Your task to perform on an android device: Search for Mexican restaurants on Maps Image 0: 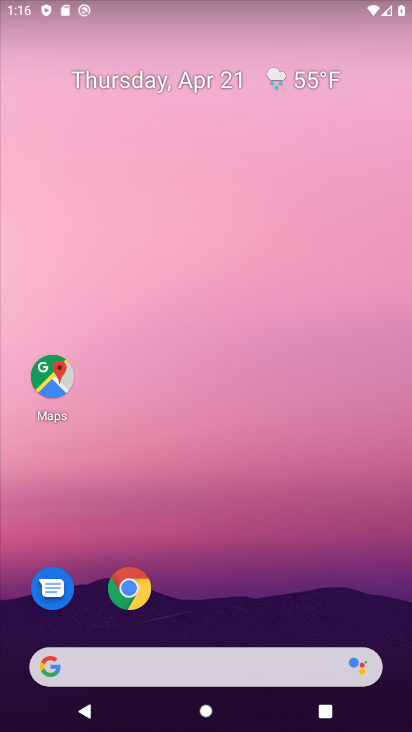
Step 0: click (39, 382)
Your task to perform on an android device: Search for Mexican restaurants on Maps Image 1: 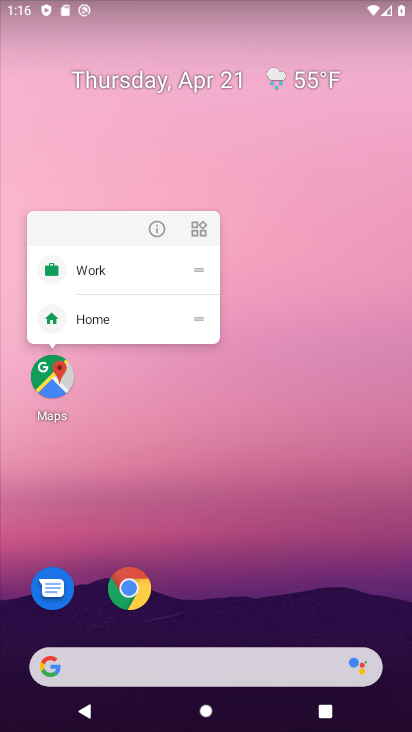
Step 1: click (55, 381)
Your task to perform on an android device: Search for Mexican restaurants on Maps Image 2: 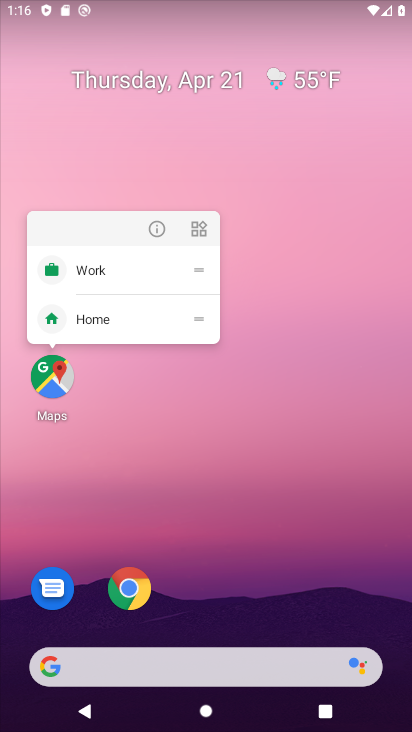
Step 2: click (68, 395)
Your task to perform on an android device: Search for Mexican restaurants on Maps Image 3: 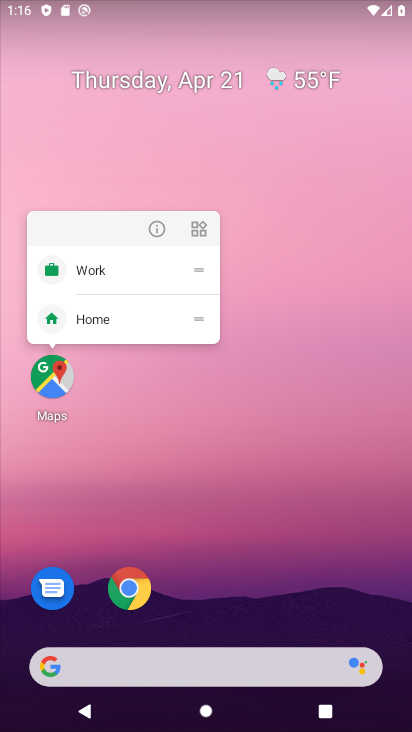
Step 3: click (59, 396)
Your task to perform on an android device: Search for Mexican restaurants on Maps Image 4: 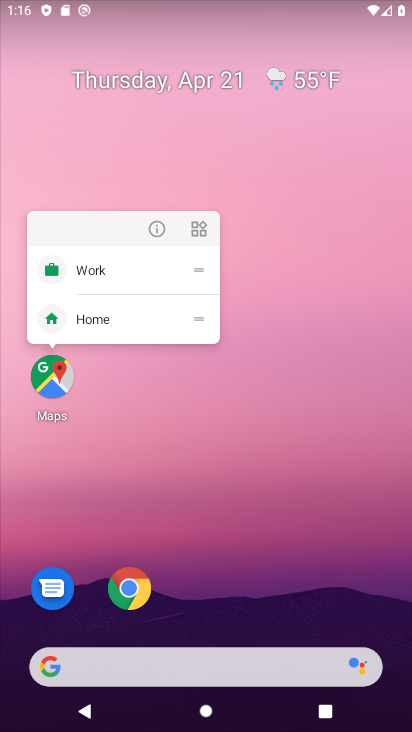
Step 4: click (59, 396)
Your task to perform on an android device: Search for Mexican restaurants on Maps Image 5: 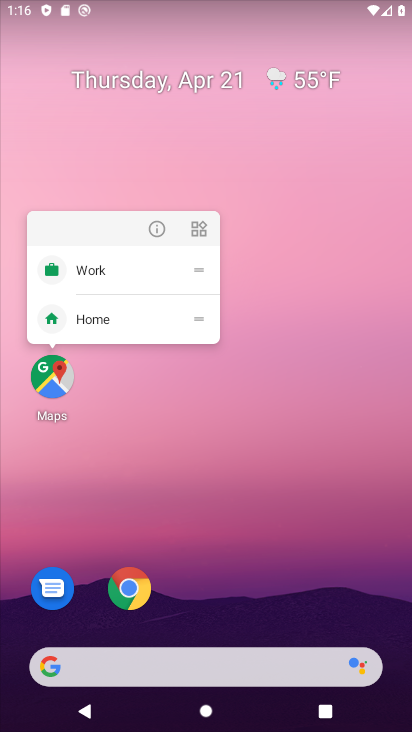
Step 5: click (59, 389)
Your task to perform on an android device: Search for Mexican restaurants on Maps Image 6: 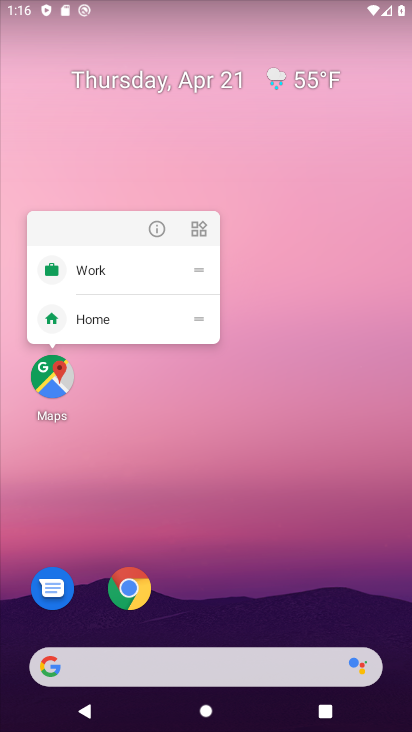
Step 6: click (54, 382)
Your task to perform on an android device: Search for Mexican restaurants on Maps Image 7: 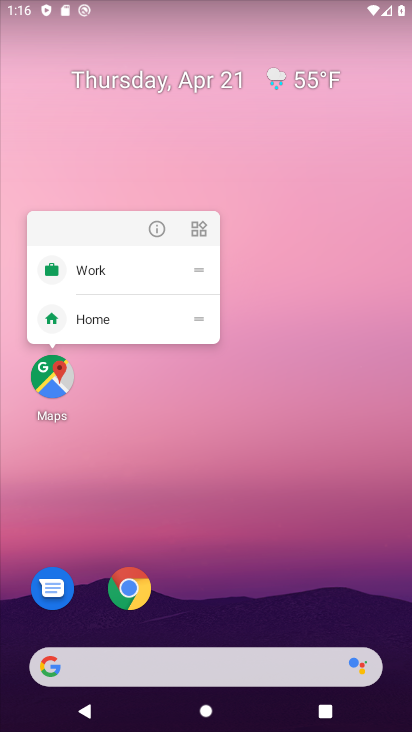
Step 7: click (51, 394)
Your task to perform on an android device: Search for Mexican restaurants on Maps Image 8: 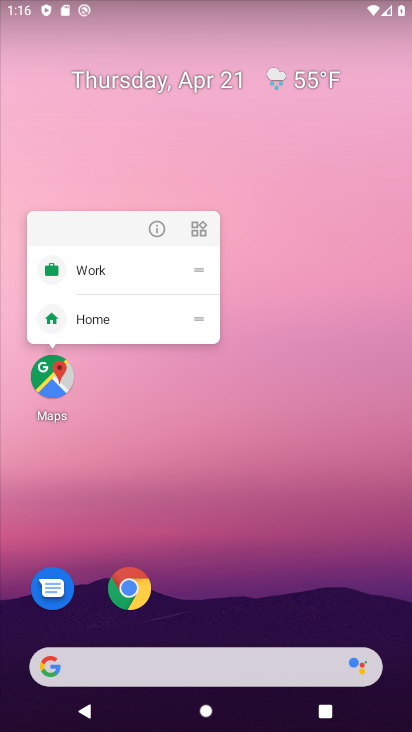
Step 8: click (38, 390)
Your task to perform on an android device: Search for Mexican restaurants on Maps Image 9: 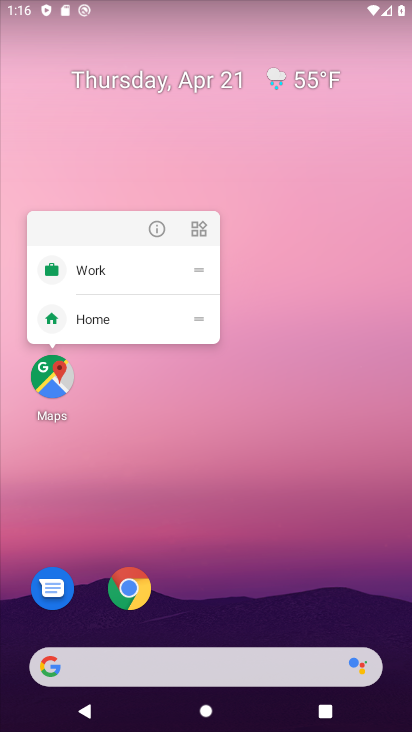
Step 9: click (38, 382)
Your task to perform on an android device: Search for Mexican restaurants on Maps Image 10: 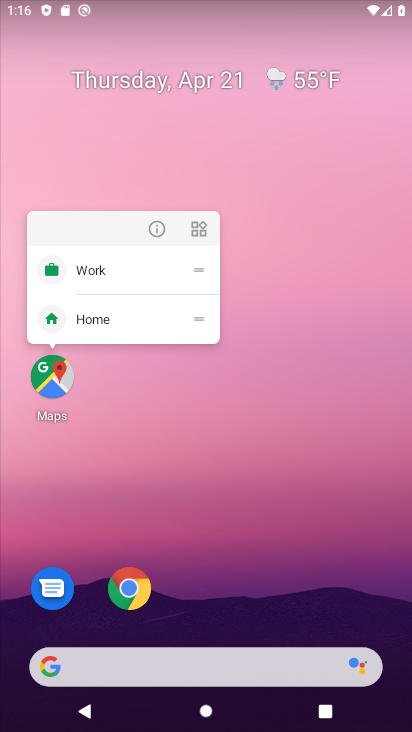
Step 10: click (38, 382)
Your task to perform on an android device: Search for Mexican restaurants on Maps Image 11: 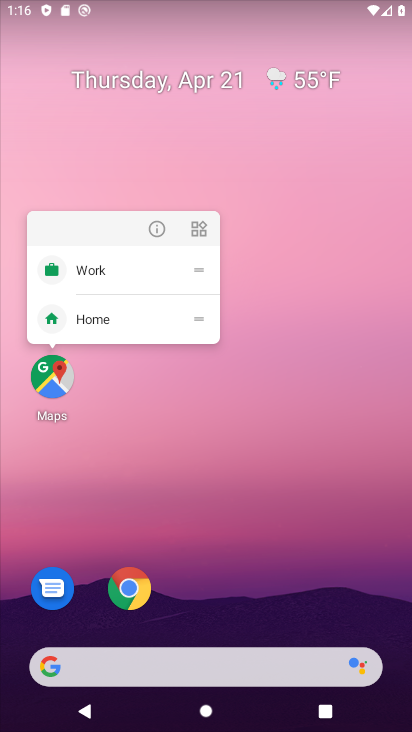
Step 11: click (77, 385)
Your task to perform on an android device: Search for Mexican restaurants on Maps Image 12: 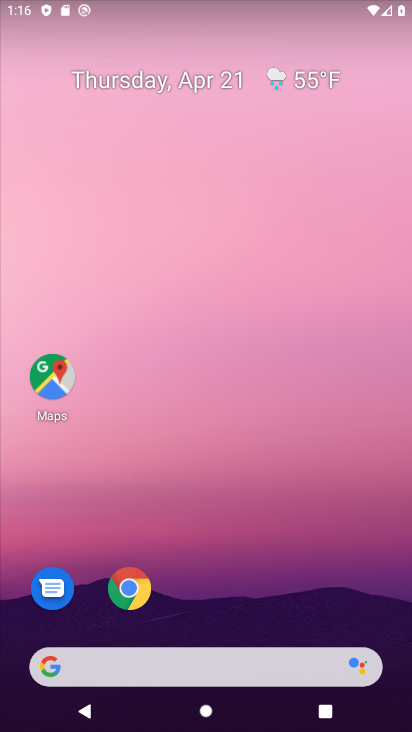
Step 12: click (63, 383)
Your task to perform on an android device: Search for Mexican restaurants on Maps Image 13: 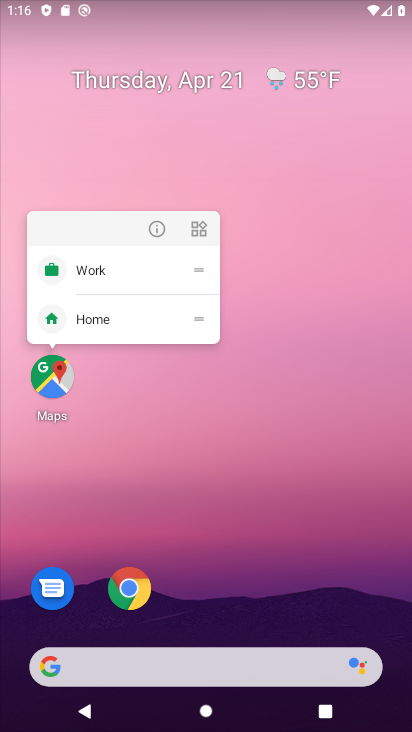
Step 13: click (36, 403)
Your task to perform on an android device: Search for Mexican restaurants on Maps Image 14: 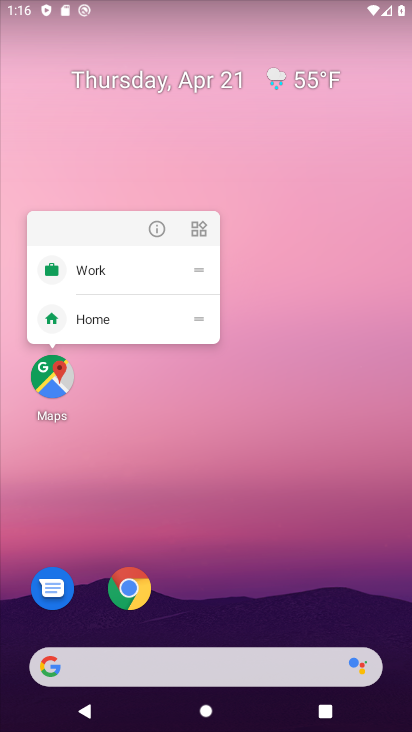
Step 14: click (38, 404)
Your task to perform on an android device: Search for Mexican restaurants on Maps Image 15: 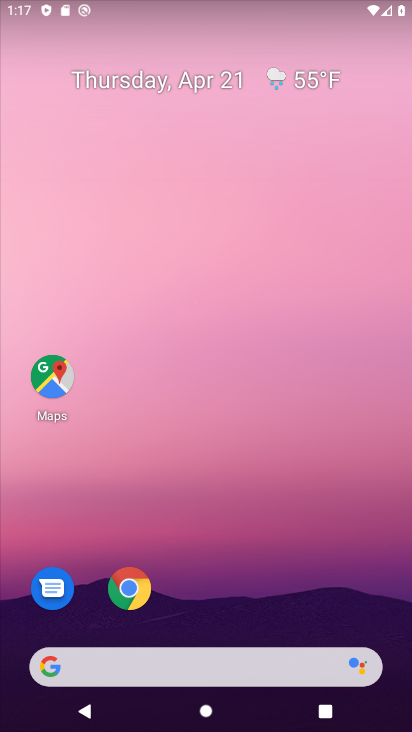
Step 15: click (57, 377)
Your task to perform on an android device: Search for Mexican restaurants on Maps Image 16: 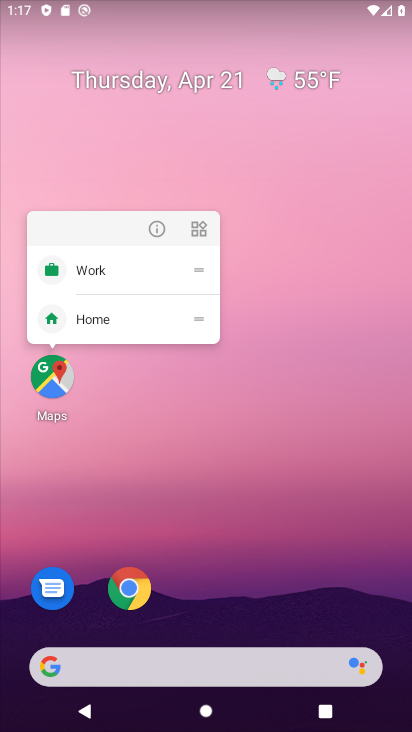
Step 16: click (57, 377)
Your task to perform on an android device: Search for Mexican restaurants on Maps Image 17: 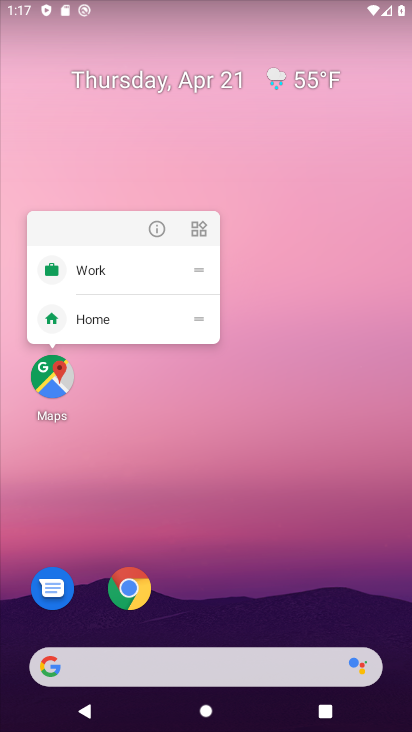
Step 17: click (57, 372)
Your task to perform on an android device: Search for Mexican restaurants on Maps Image 18: 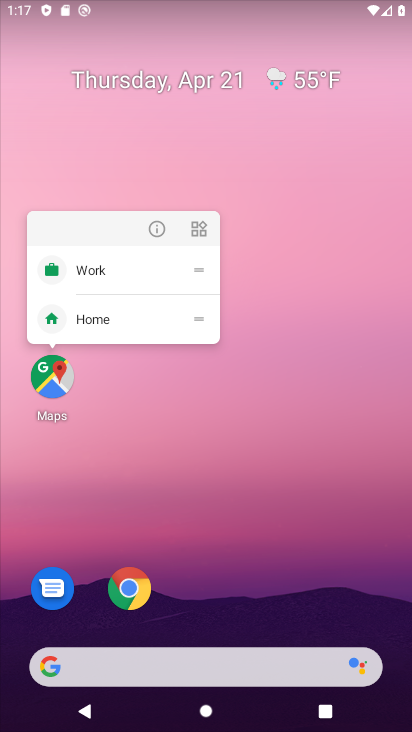
Step 18: click (57, 372)
Your task to perform on an android device: Search for Mexican restaurants on Maps Image 19: 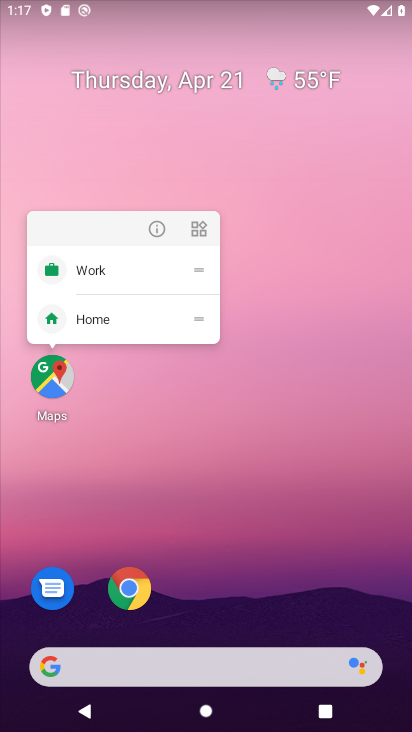
Step 19: click (60, 371)
Your task to perform on an android device: Search for Mexican restaurants on Maps Image 20: 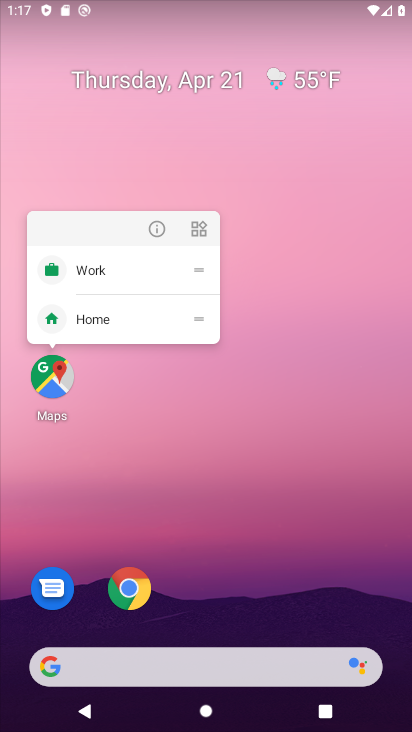
Step 20: click (69, 379)
Your task to perform on an android device: Search for Mexican restaurants on Maps Image 21: 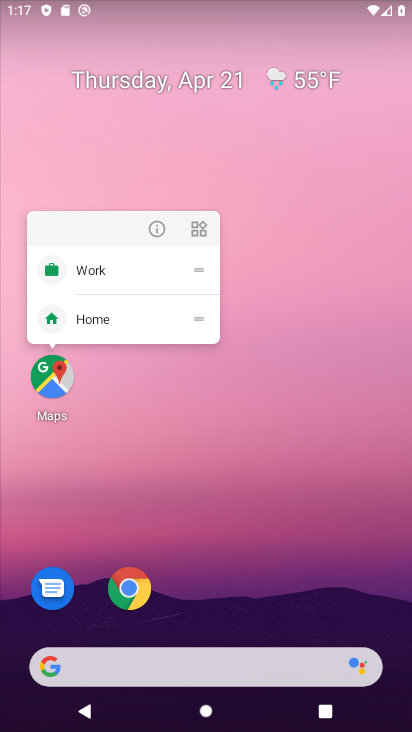
Step 21: click (62, 381)
Your task to perform on an android device: Search for Mexican restaurants on Maps Image 22: 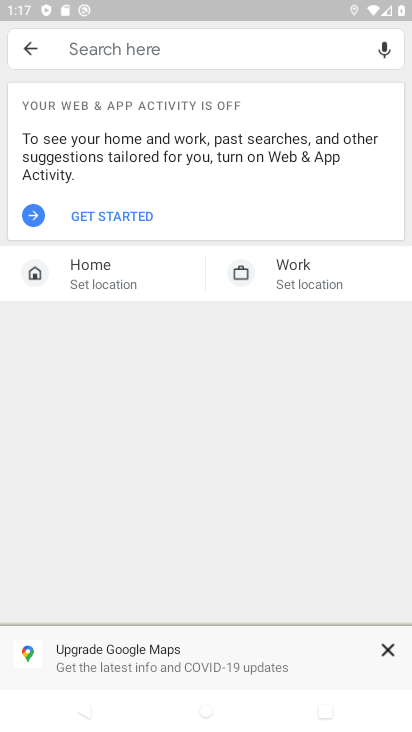
Step 22: click (172, 55)
Your task to perform on an android device: Search for Mexican restaurants on Maps Image 23: 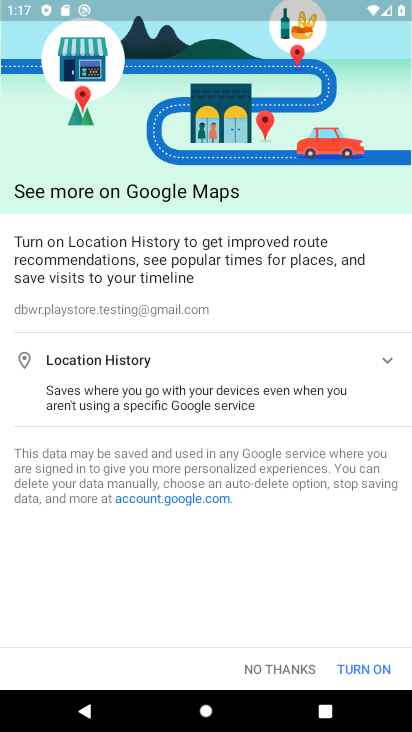
Step 23: click (273, 658)
Your task to perform on an android device: Search for Mexican restaurants on Maps Image 24: 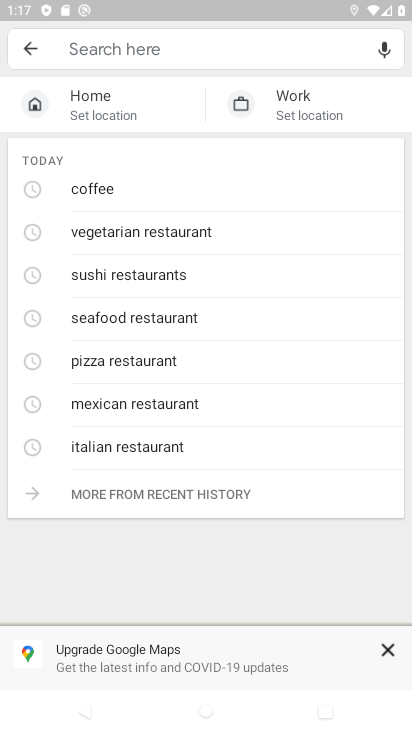
Step 24: click (142, 47)
Your task to perform on an android device: Search for Mexican restaurants on Maps Image 25: 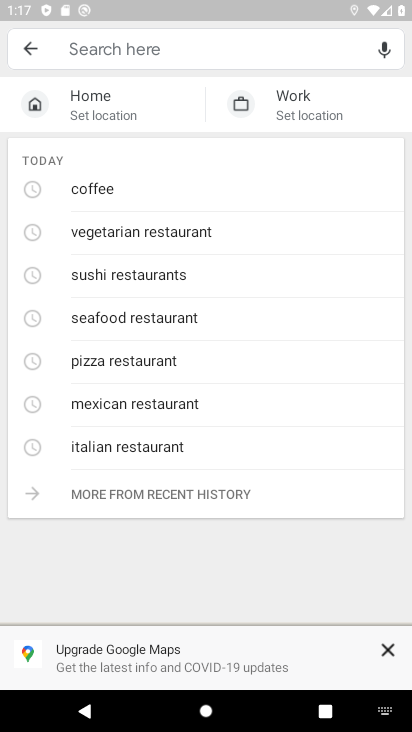
Step 25: type "mexican restaurants "
Your task to perform on an android device: Search for Mexican restaurants on Maps Image 26: 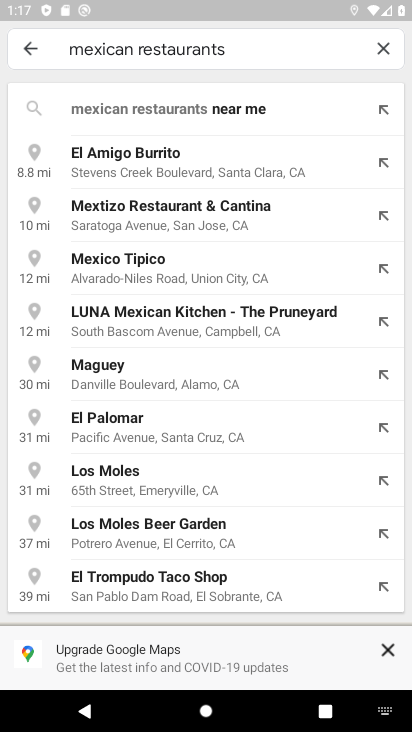
Step 26: click (238, 117)
Your task to perform on an android device: Search for Mexican restaurants on Maps Image 27: 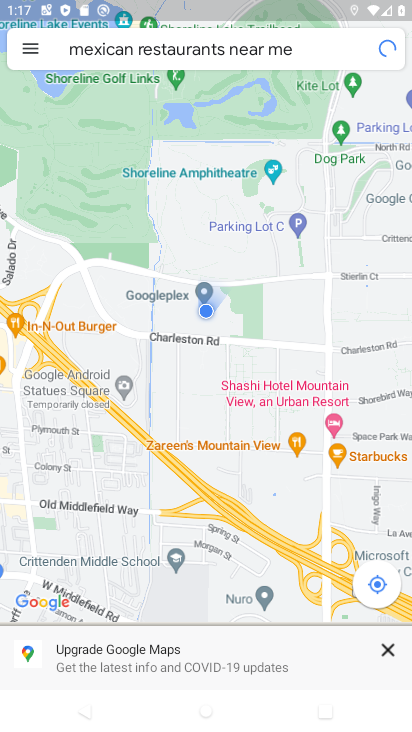
Step 27: click (376, 659)
Your task to perform on an android device: Search for Mexican restaurants on Maps Image 28: 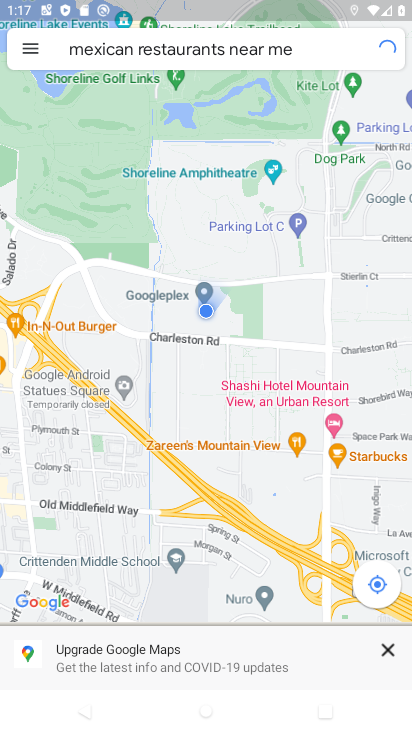
Step 28: click (390, 657)
Your task to perform on an android device: Search for Mexican restaurants on Maps Image 29: 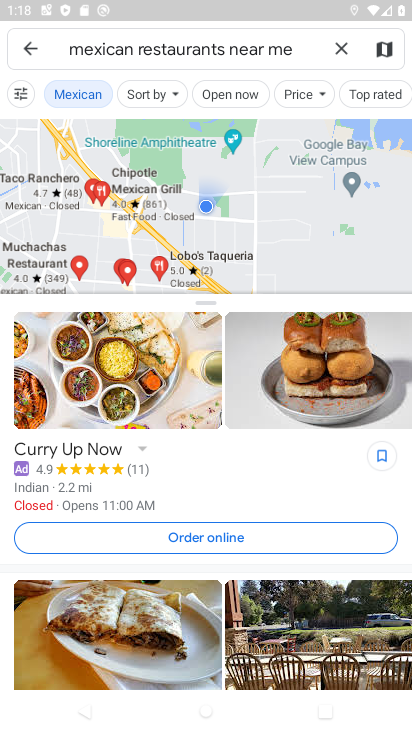
Step 29: task complete